Your task to perform on an android device: search for starred emails in the gmail app Image 0: 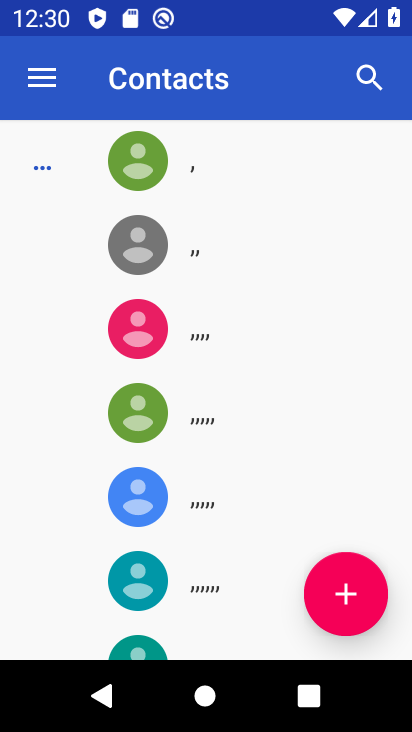
Step 0: press home button
Your task to perform on an android device: search for starred emails in the gmail app Image 1: 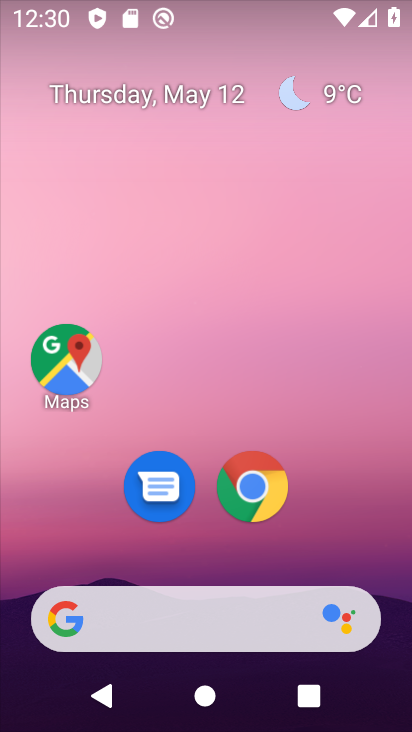
Step 1: drag from (161, 588) to (215, 203)
Your task to perform on an android device: search for starred emails in the gmail app Image 2: 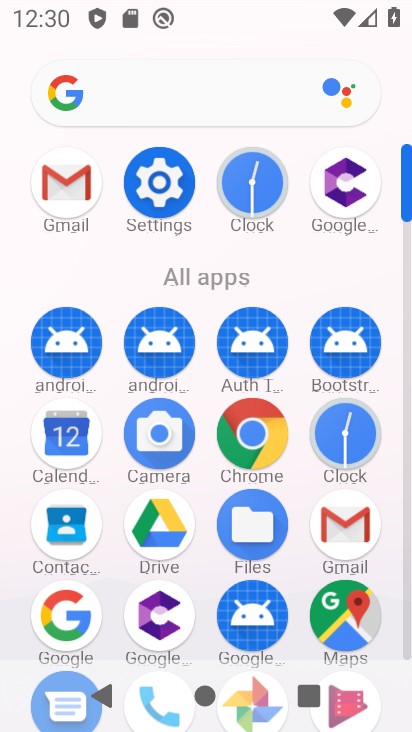
Step 2: click (353, 536)
Your task to perform on an android device: search for starred emails in the gmail app Image 3: 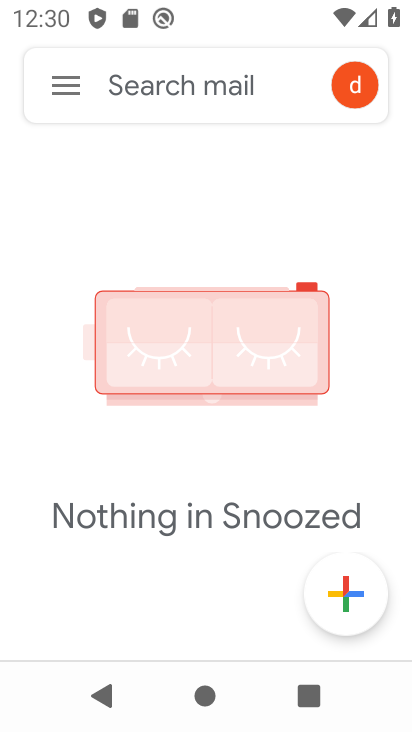
Step 3: click (66, 93)
Your task to perform on an android device: search for starred emails in the gmail app Image 4: 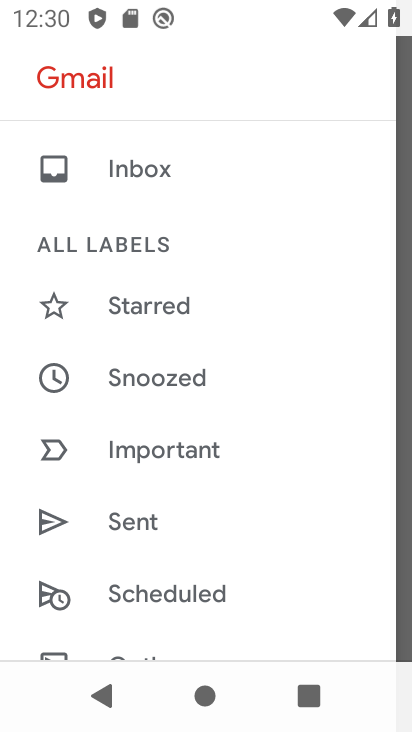
Step 4: click (168, 326)
Your task to perform on an android device: search for starred emails in the gmail app Image 5: 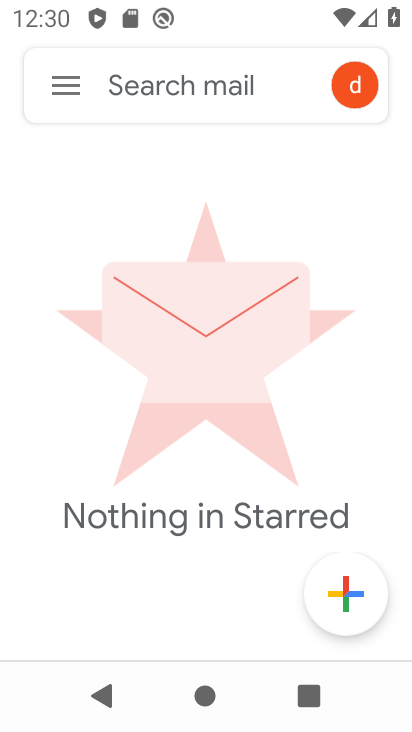
Step 5: task complete